Your task to perform on an android device: open app "AliExpress" (install if not already installed) Image 0: 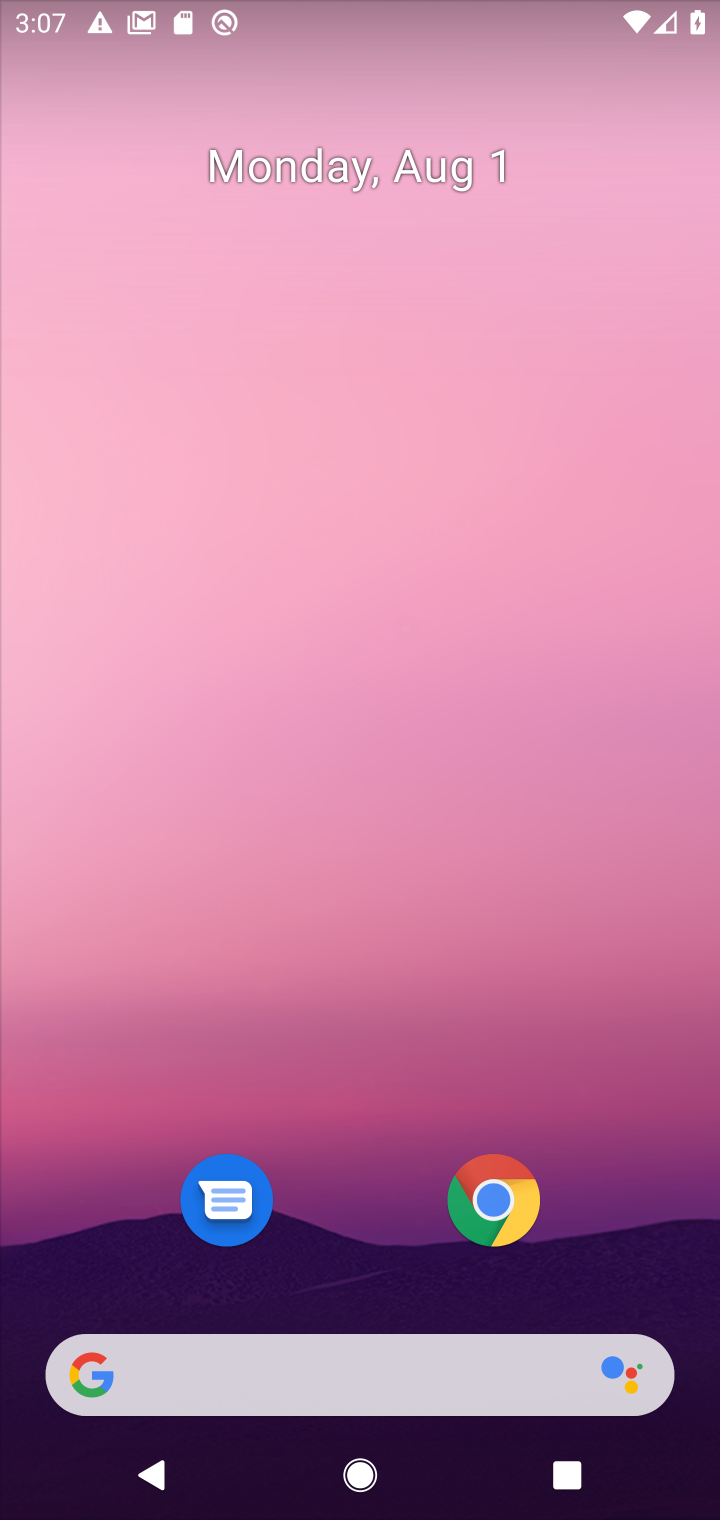
Step 0: drag from (346, 1193) to (539, 11)
Your task to perform on an android device: open app "AliExpress" (install if not already installed) Image 1: 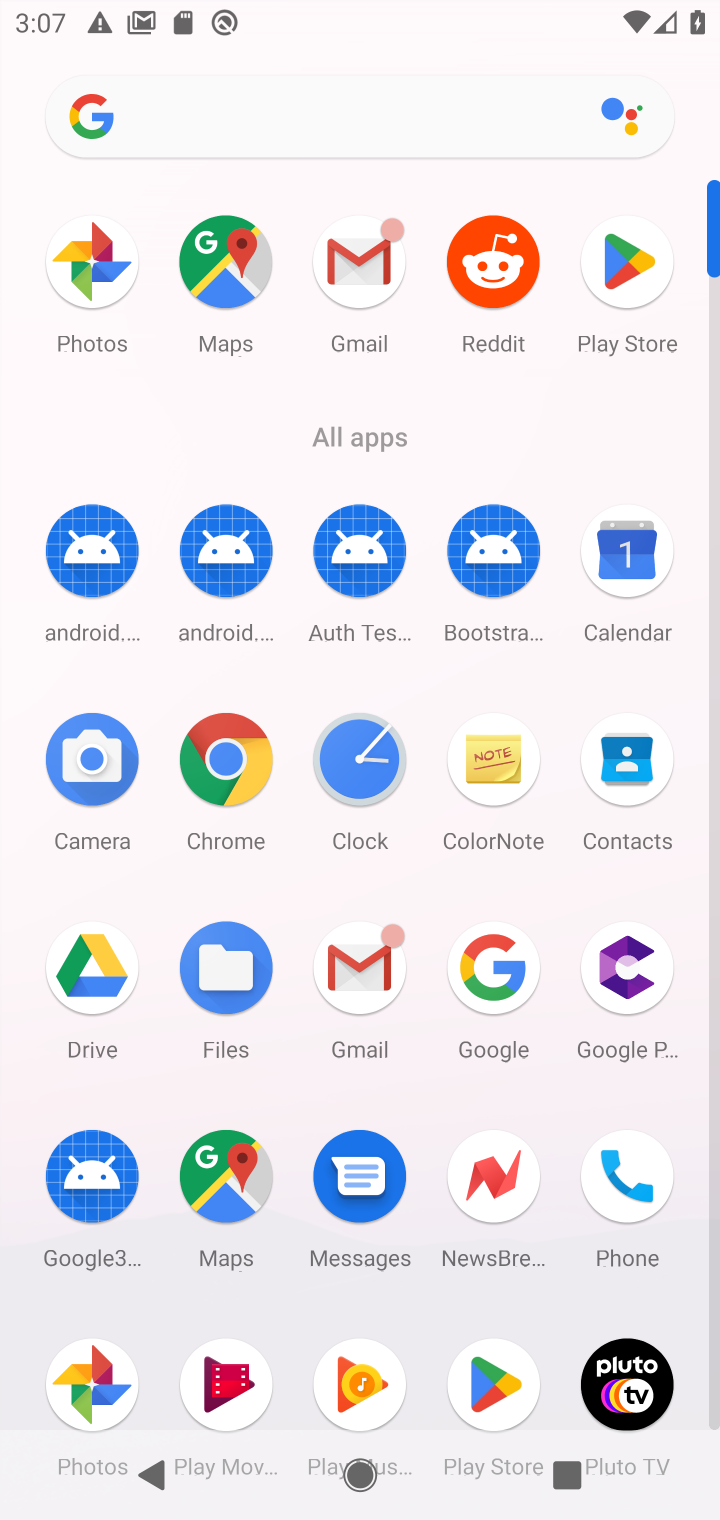
Step 1: click (635, 294)
Your task to perform on an android device: open app "AliExpress" (install if not already installed) Image 2: 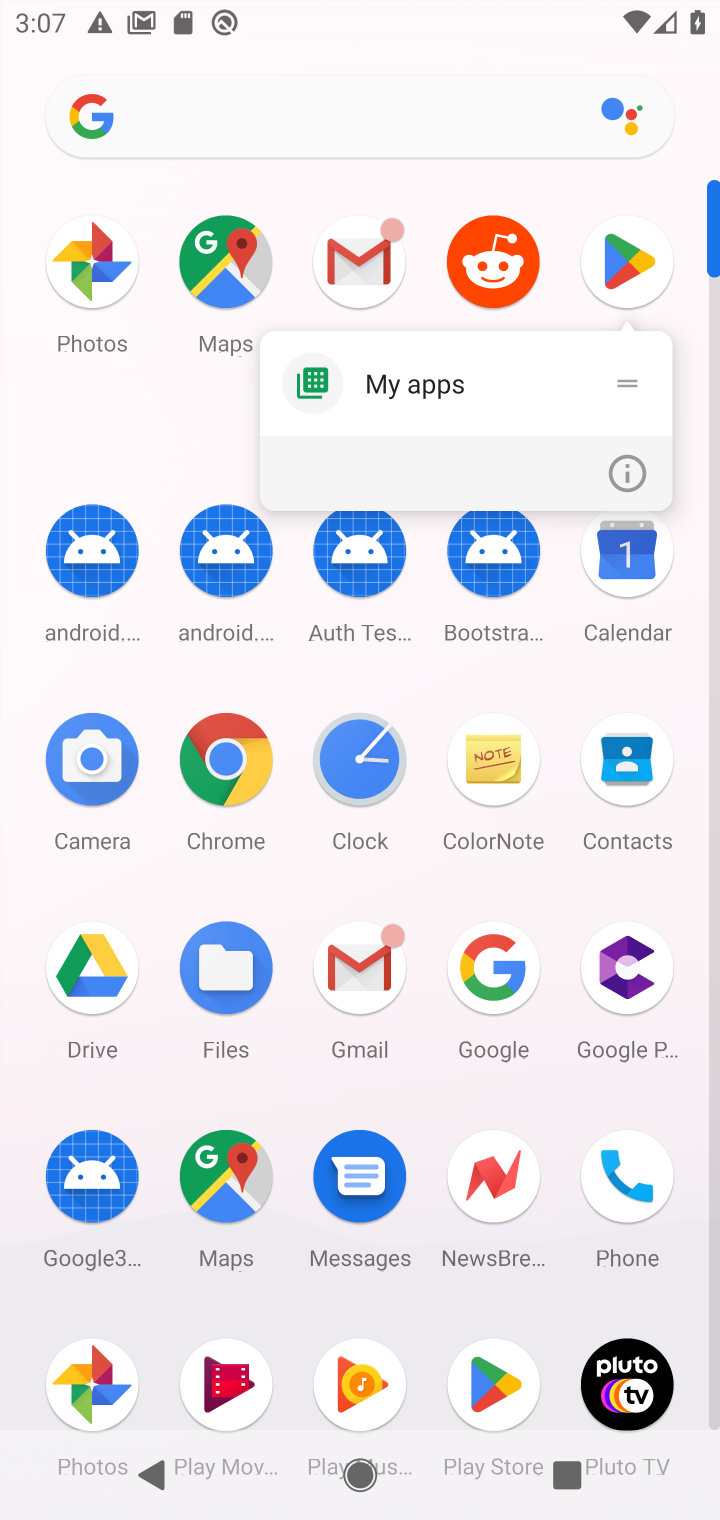
Step 2: click (650, 246)
Your task to perform on an android device: open app "AliExpress" (install if not already installed) Image 3: 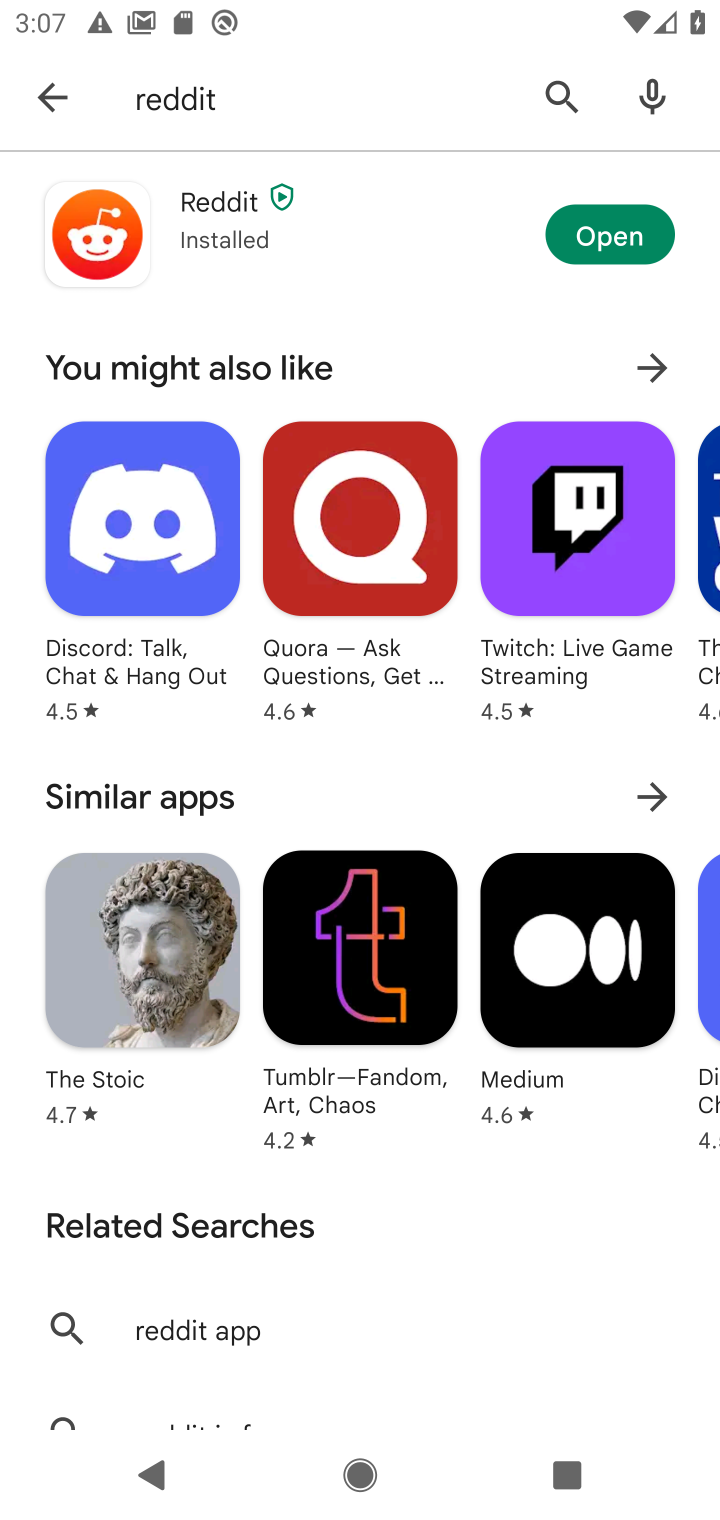
Step 3: click (303, 105)
Your task to perform on an android device: open app "AliExpress" (install if not already installed) Image 4: 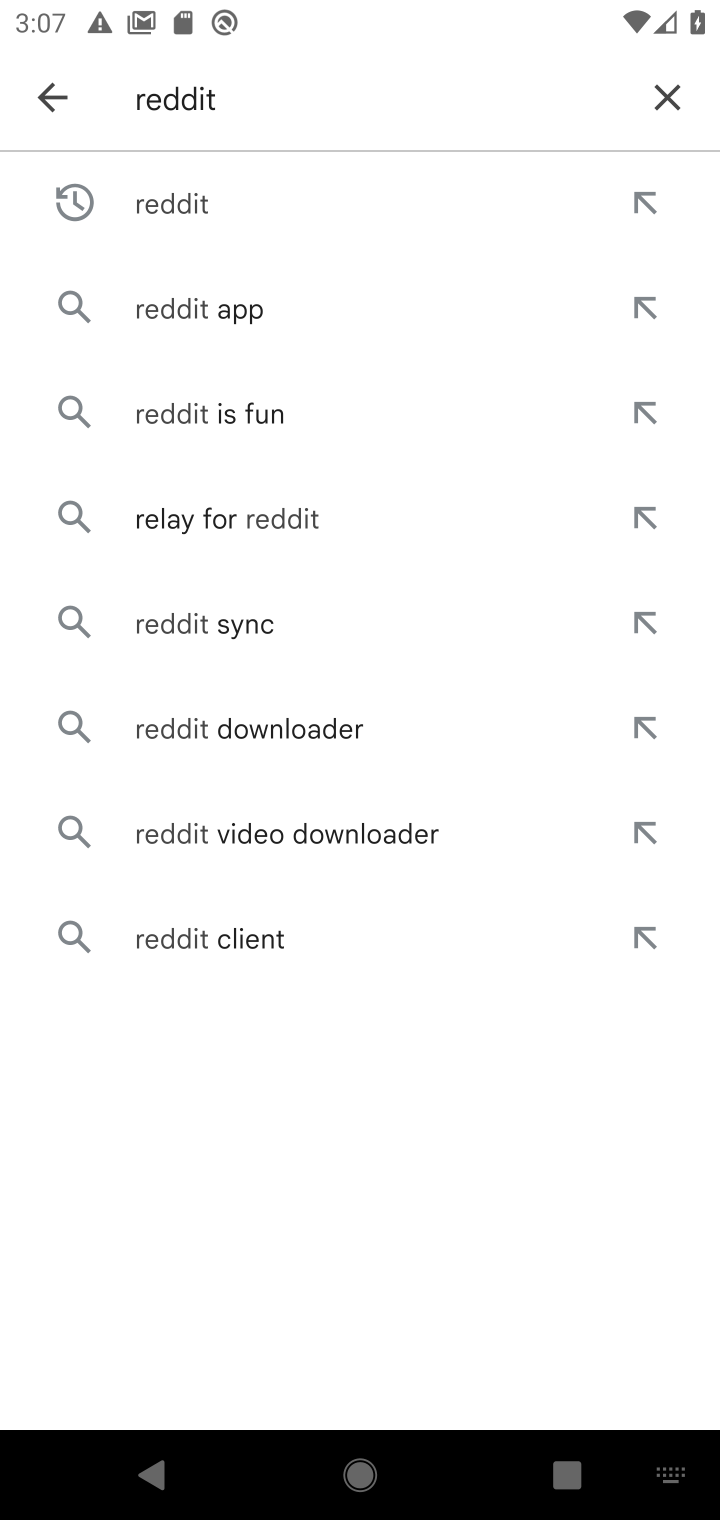
Step 4: click (659, 87)
Your task to perform on an android device: open app "AliExpress" (install if not already installed) Image 5: 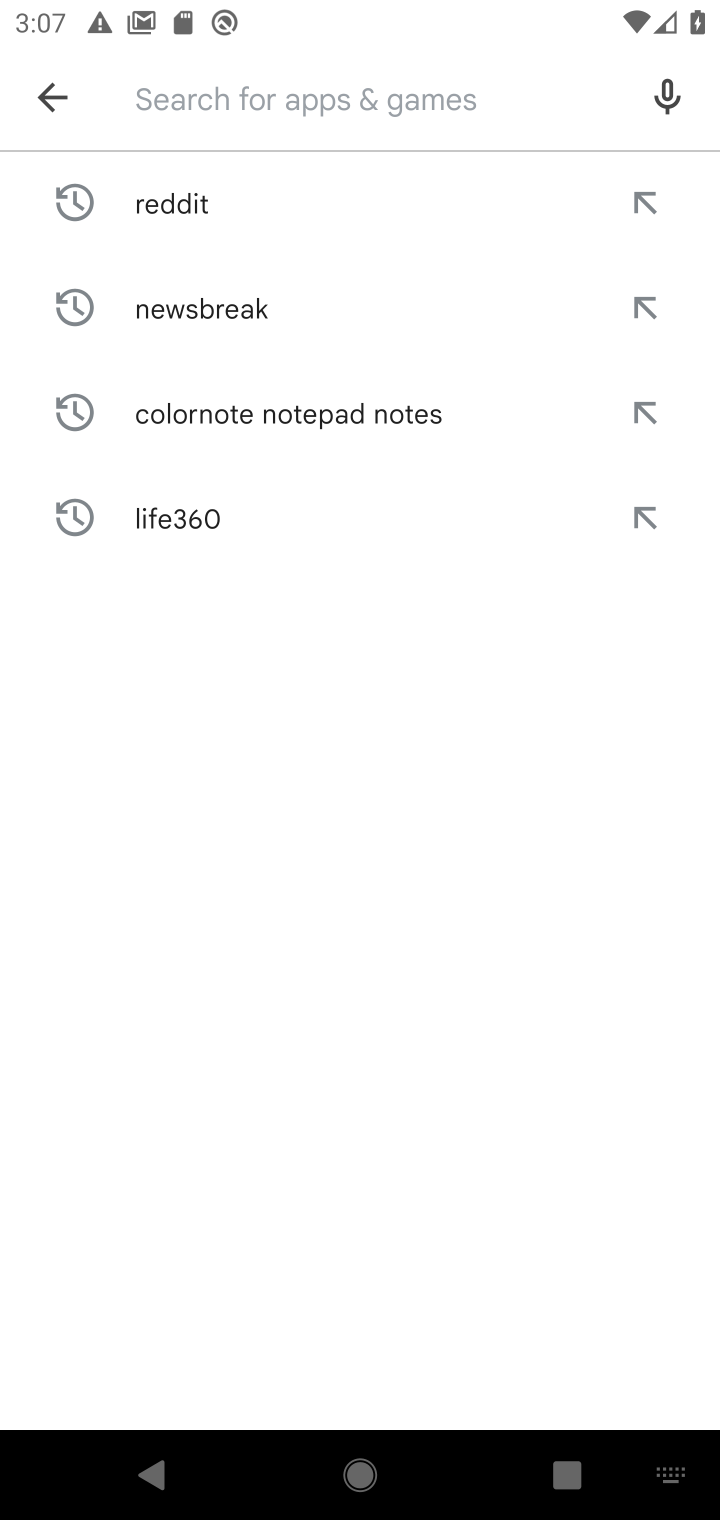
Step 5: type "AliExpress"
Your task to perform on an android device: open app "AliExpress" (install if not already installed) Image 6: 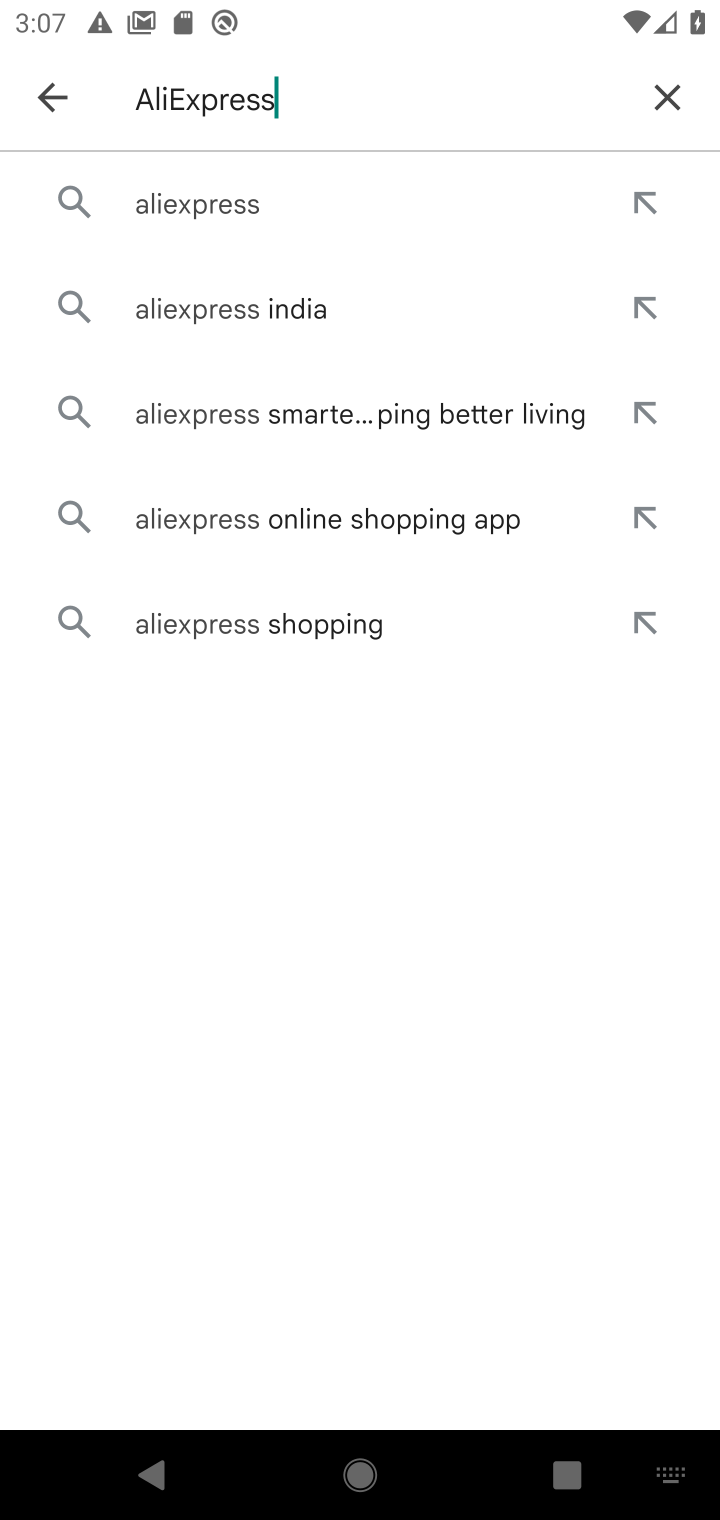
Step 6: click (209, 181)
Your task to perform on an android device: open app "AliExpress" (install if not already installed) Image 7: 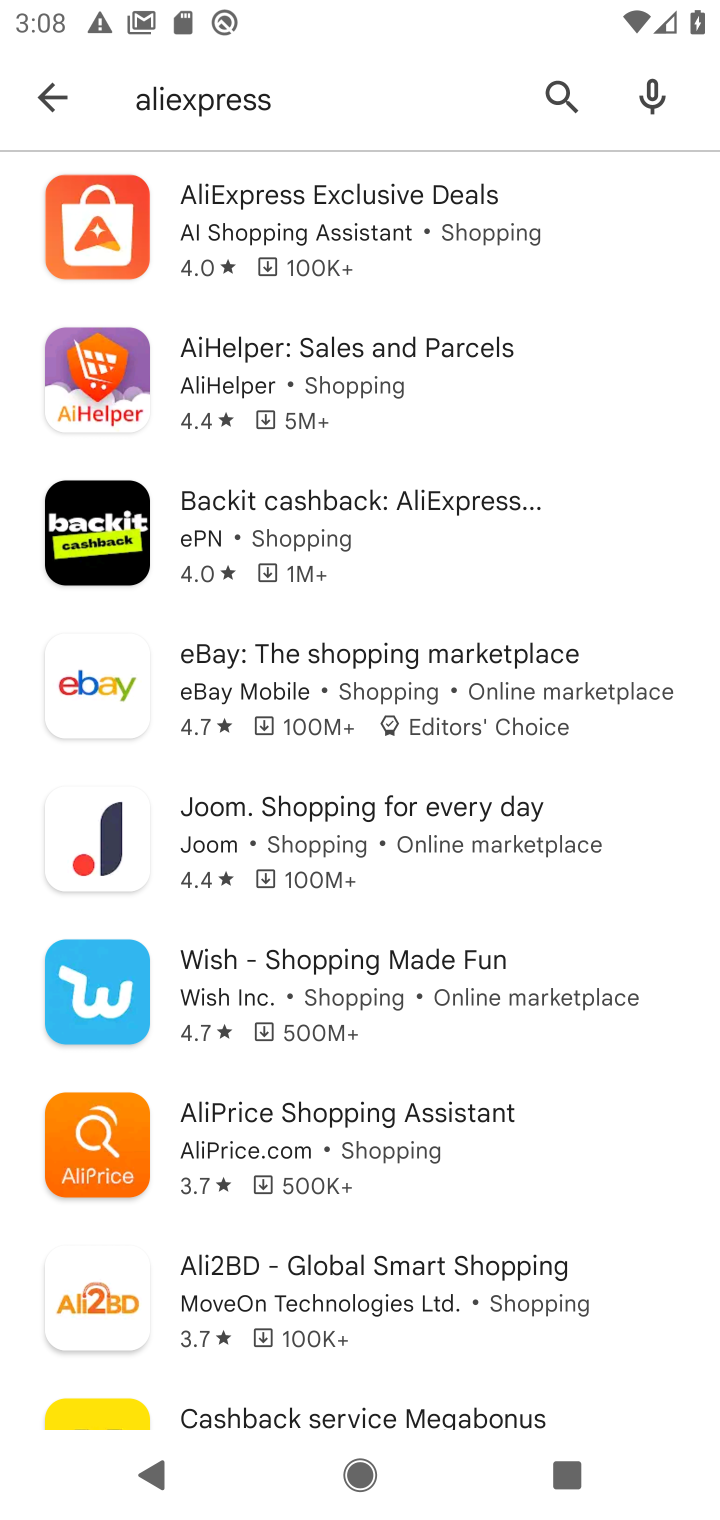
Step 7: click (279, 199)
Your task to perform on an android device: open app "AliExpress" (install if not already installed) Image 8: 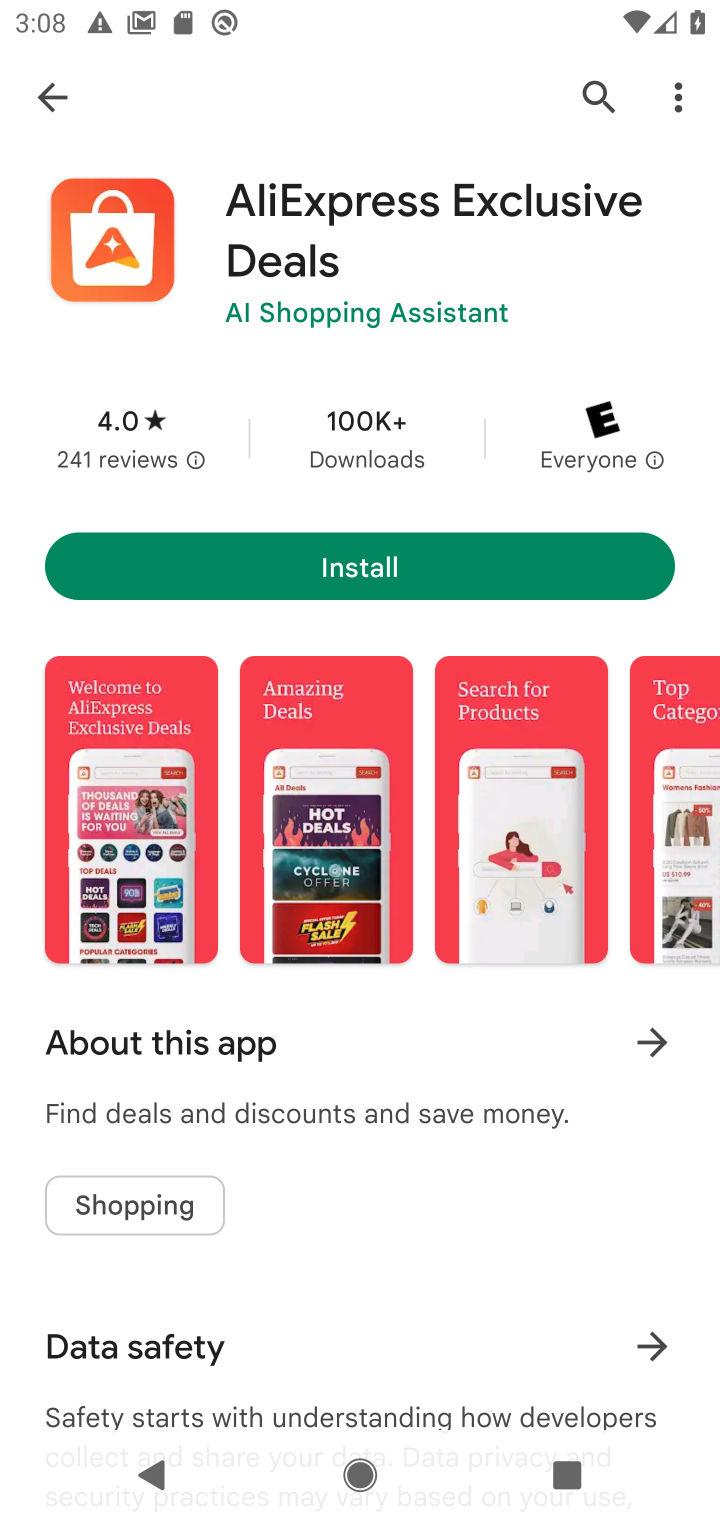
Step 8: click (357, 585)
Your task to perform on an android device: open app "AliExpress" (install if not already installed) Image 9: 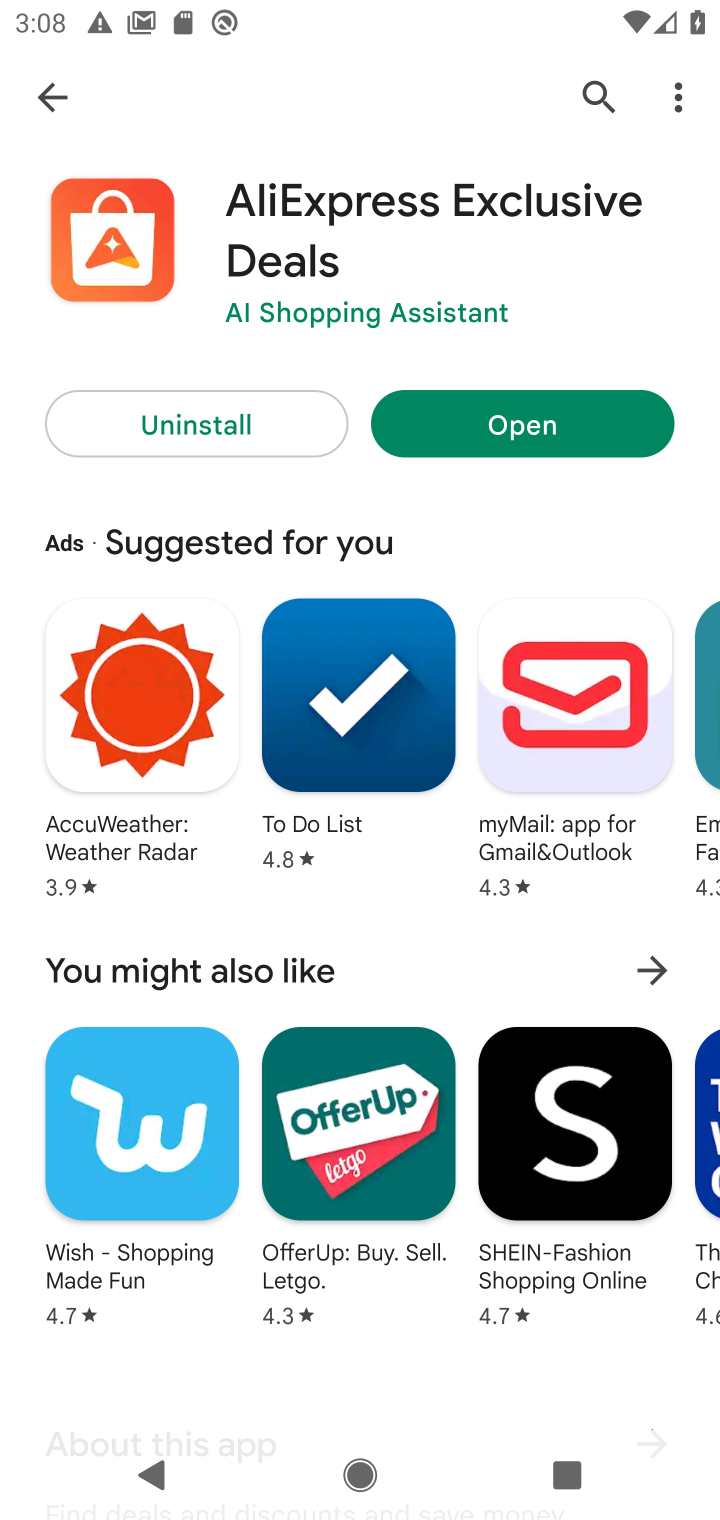
Step 9: click (569, 420)
Your task to perform on an android device: open app "AliExpress" (install if not already installed) Image 10: 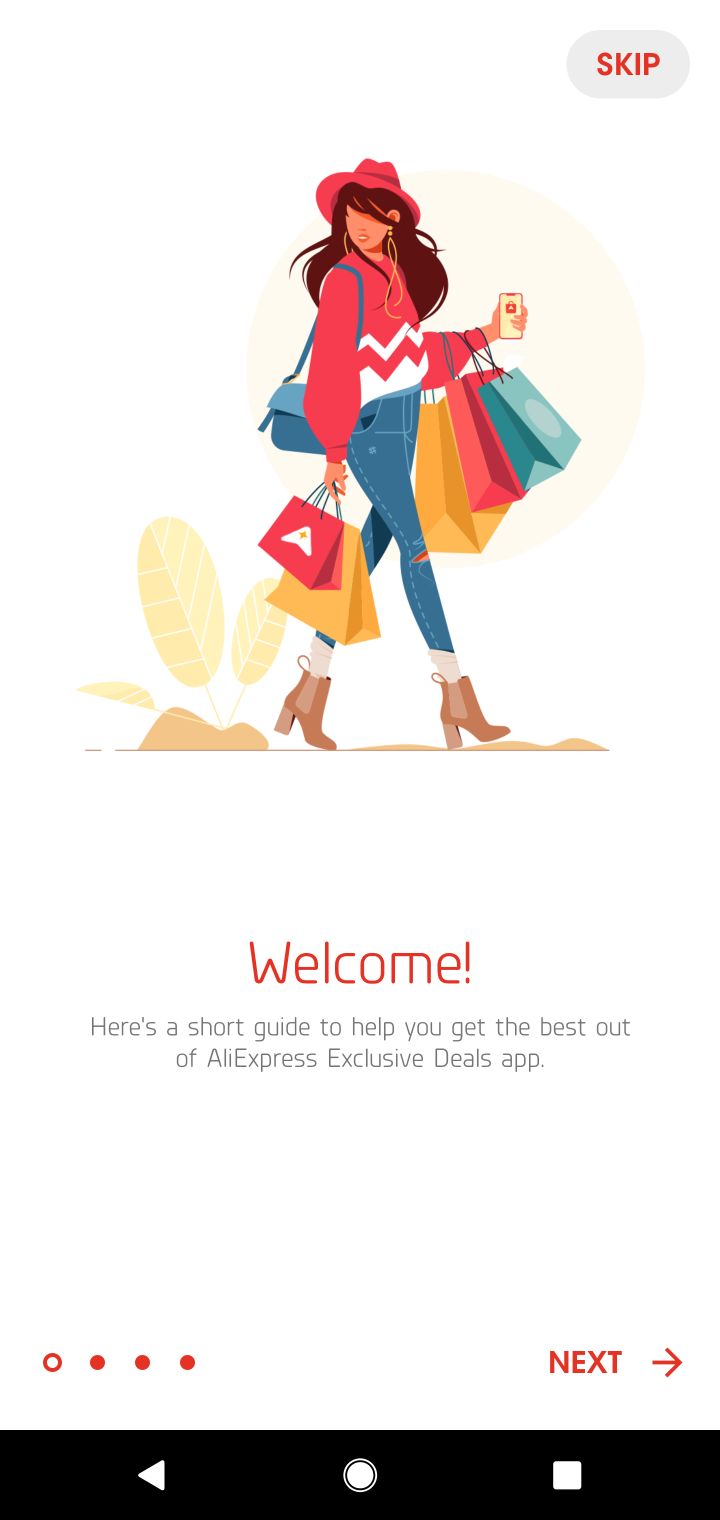
Step 10: click (622, 58)
Your task to perform on an android device: open app "AliExpress" (install if not already installed) Image 11: 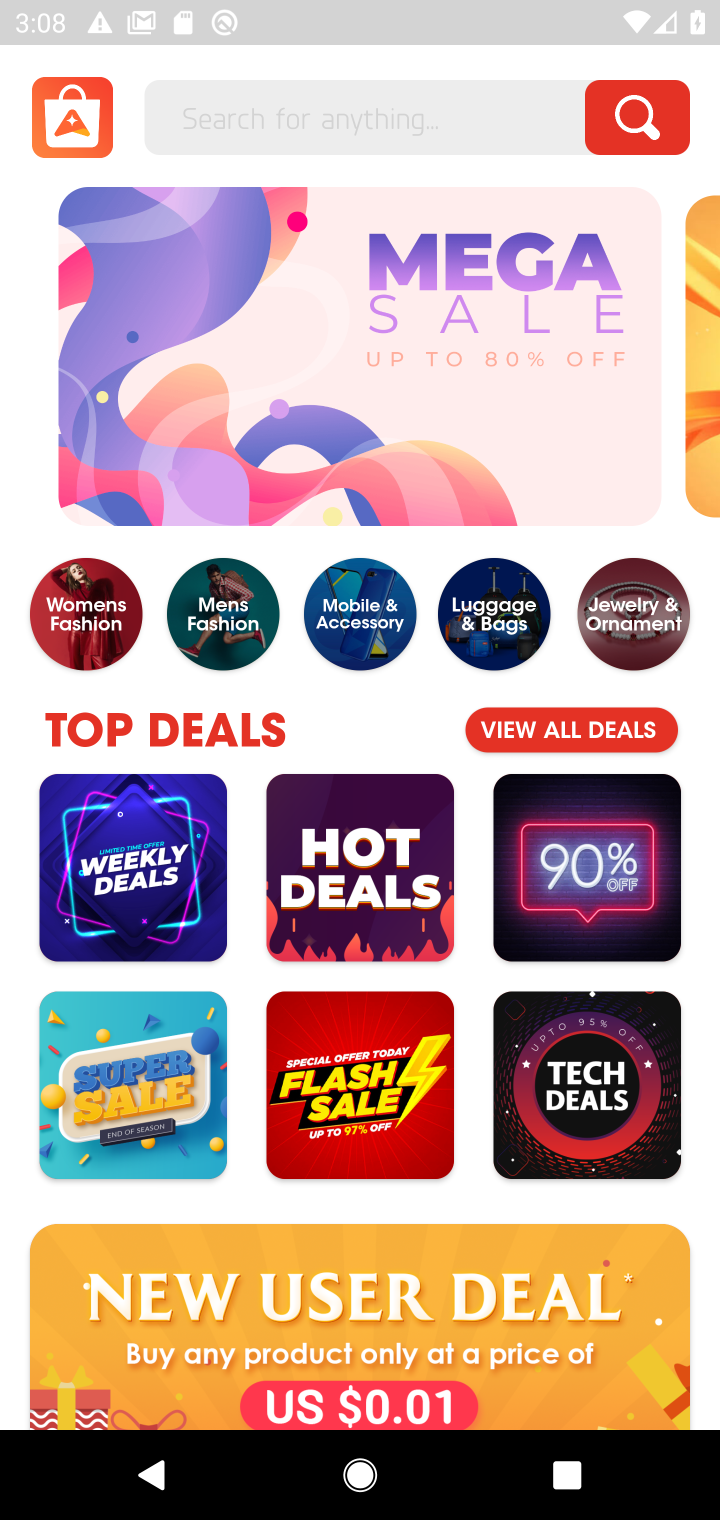
Step 11: click (396, 377)
Your task to perform on an android device: open app "AliExpress" (install if not already installed) Image 12: 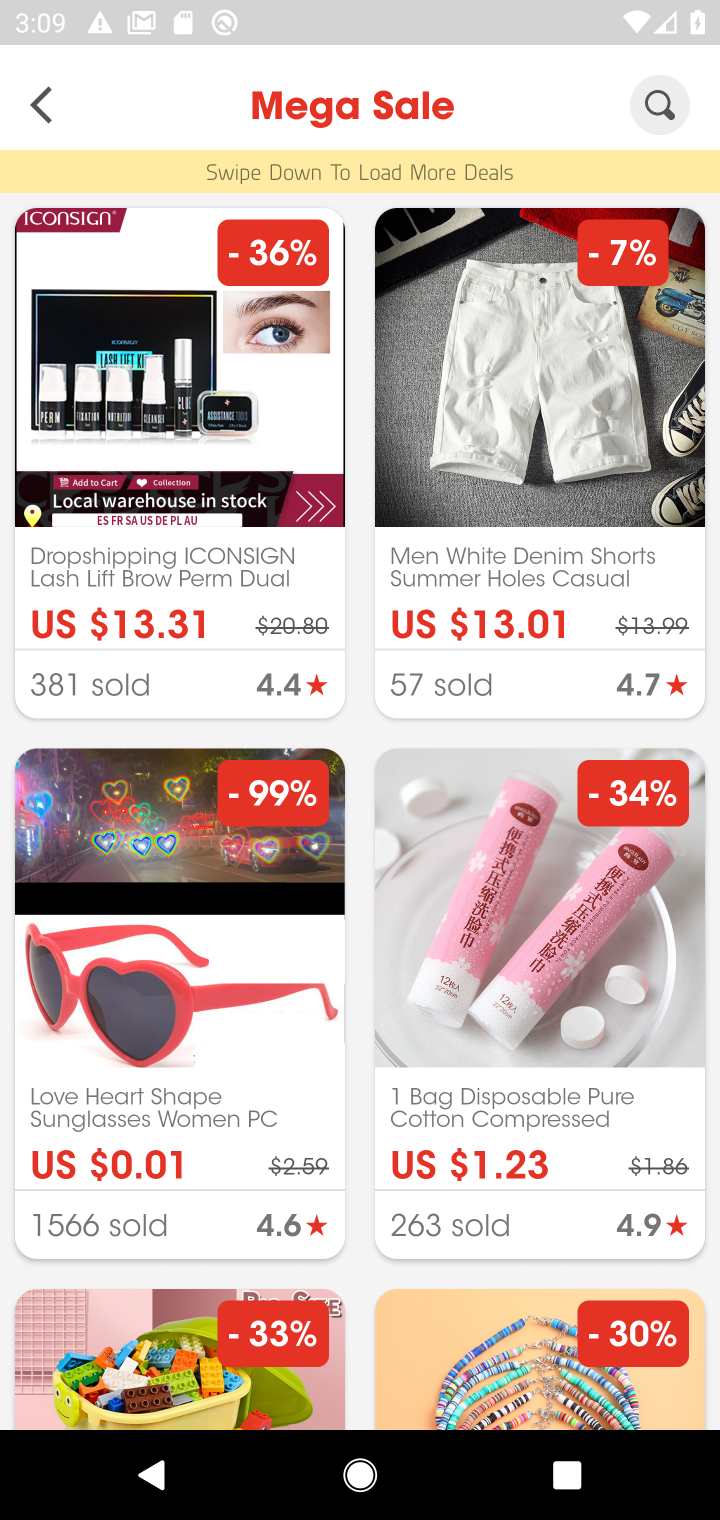
Step 12: task complete